Your task to perform on an android device: Show me popular games on the Play Store Image 0: 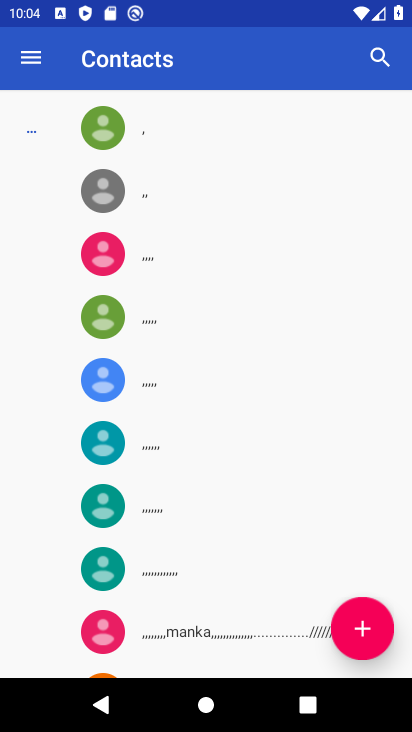
Step 0: press home button
Your task to perform on an android device: Show me popular games on the Play Store Image 1: 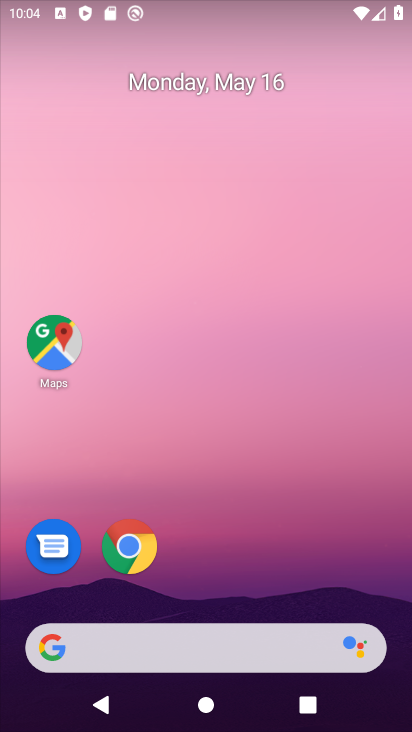
Step 1: drag from (155, 597) to (143, 124)
Your task to perform on an android device: Show me popular games on the Play Store Image 2: 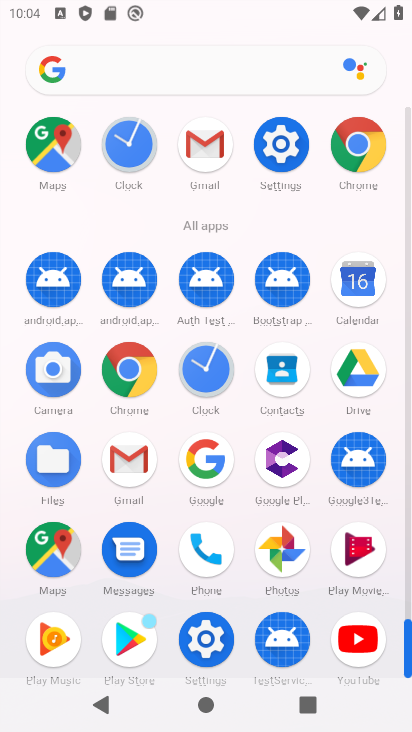
Step 2: click (134, 632)
Your task to perform on an android device: Show me popular games on the Play Store Image 3: 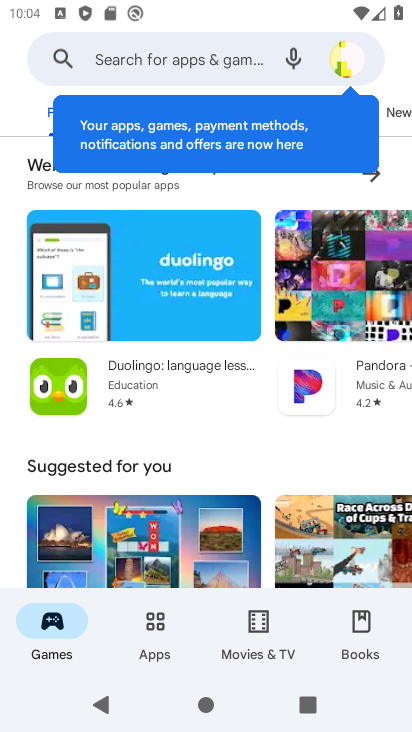
Step 3: click (58, 620)
Your task to perform on an android device: Show me popular games on the Play Store Image 4: 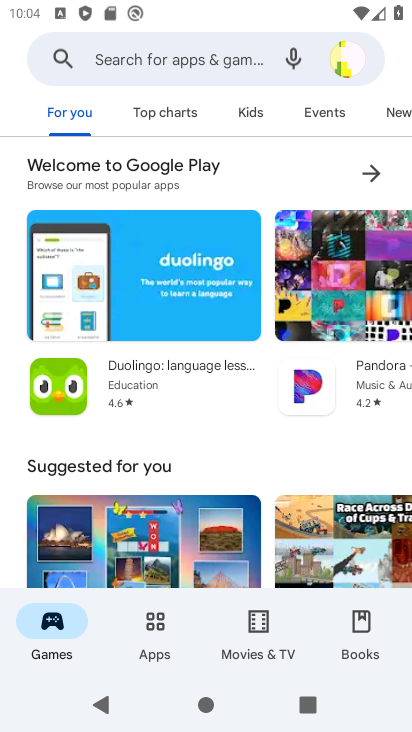
Step 4: click (181, 104)
Your task to perform on an android device: Show me popular games on the Play Store Image 5: 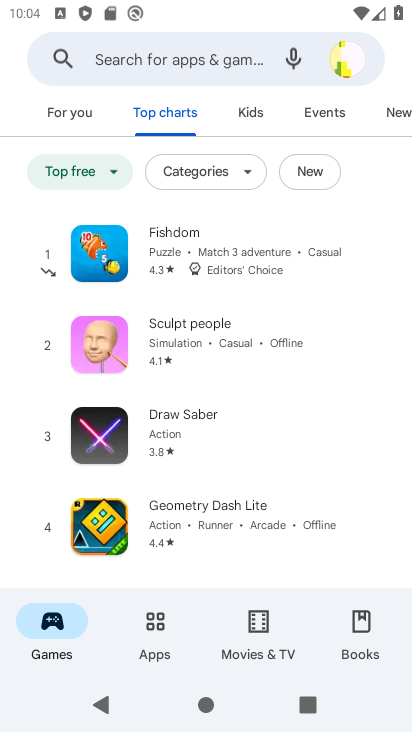
Step 5: task complete